Your task to perform on an android device: Search for the best rated TV on Target Image 0: 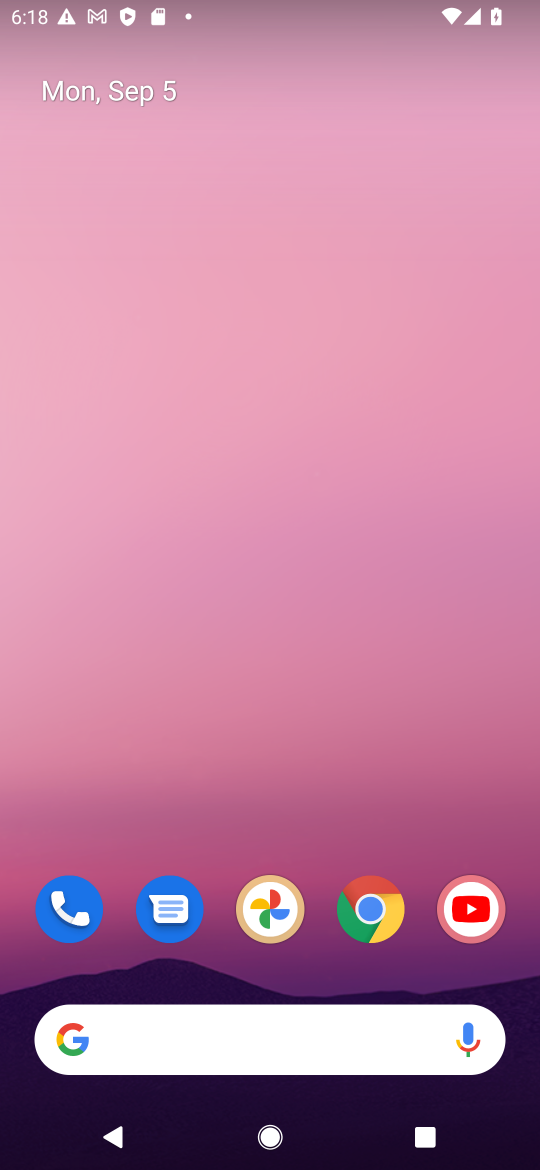
Step 0: drag from (227, 810) to (182, 163)
Your task to perform on an android device: Search for the best rated TV on Target Image 1: 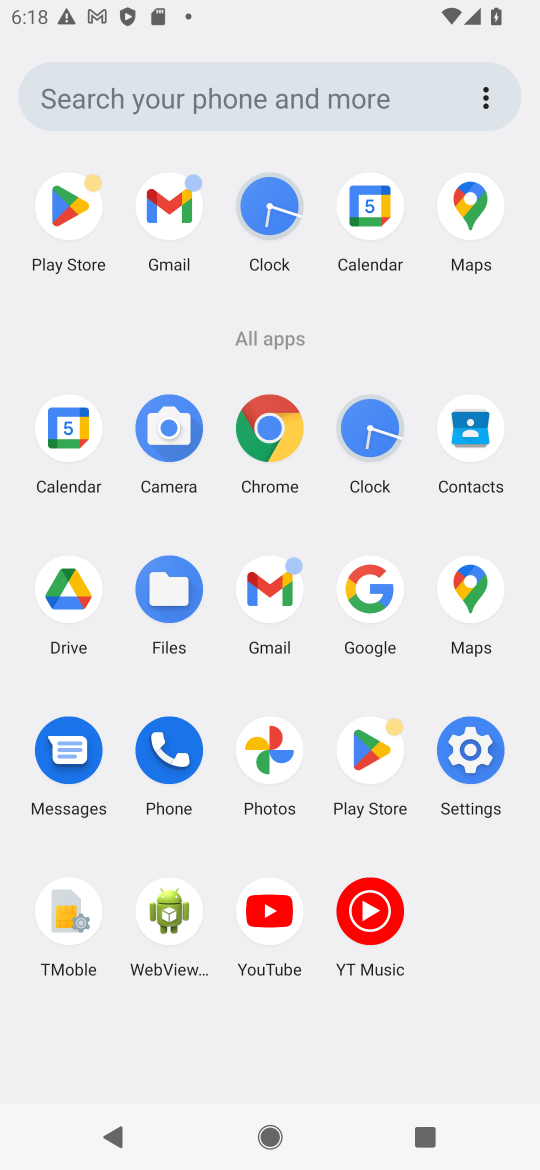
Step 1: click (362, 595)
Your task to perform on an android device: Search for the best rated TV on Target Image 2: 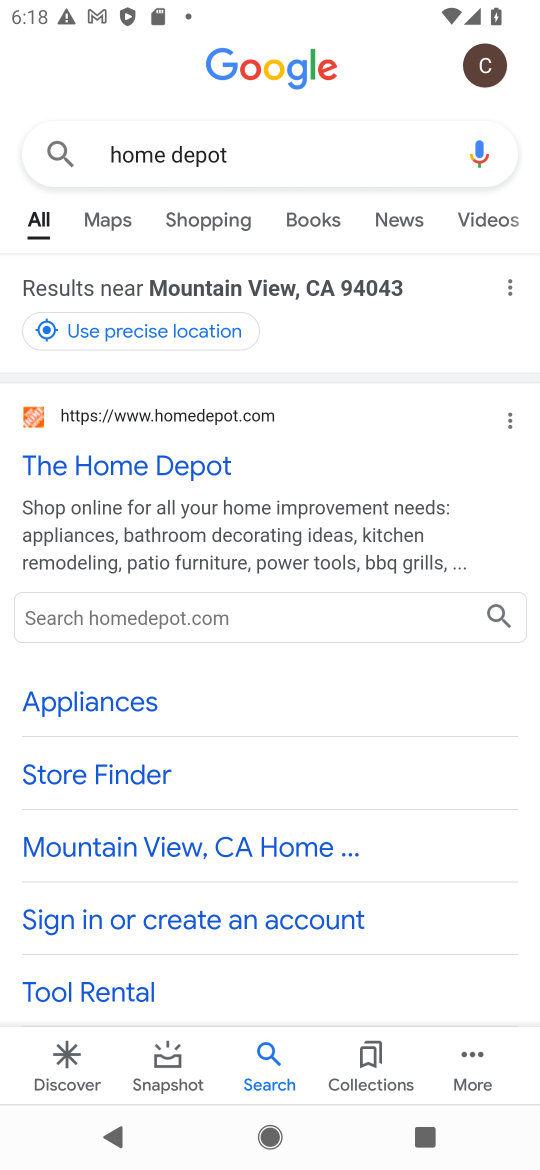
Step 2: click (301, 156)
Your task to perform on an android device: Search for the best rated TV on Target Image 3: 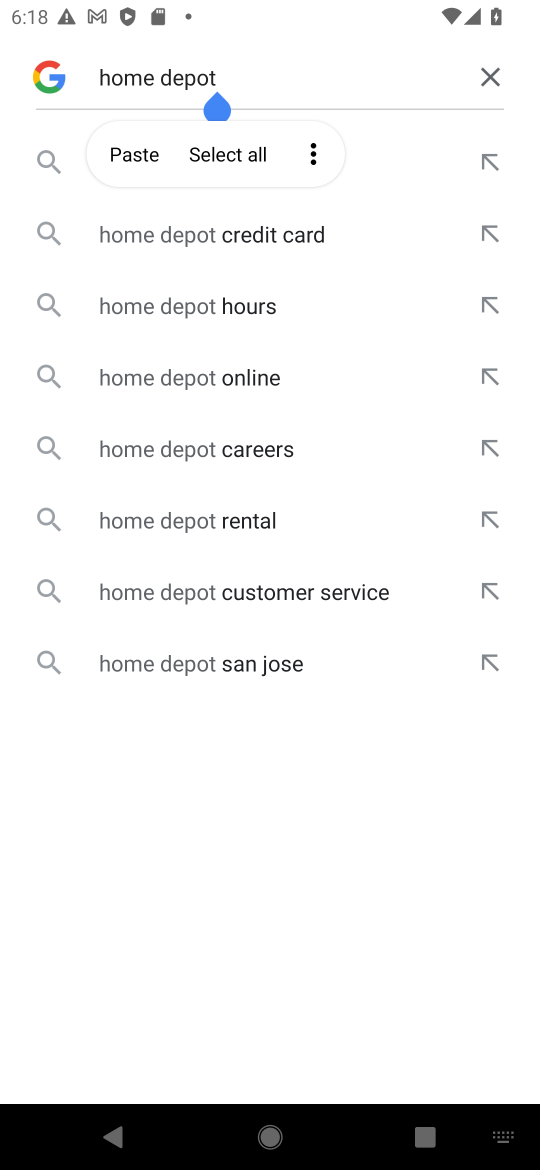
Step 3: click (492, 77)
Your task to perform on an android device: Search for the best rated TV on Target Image 4: 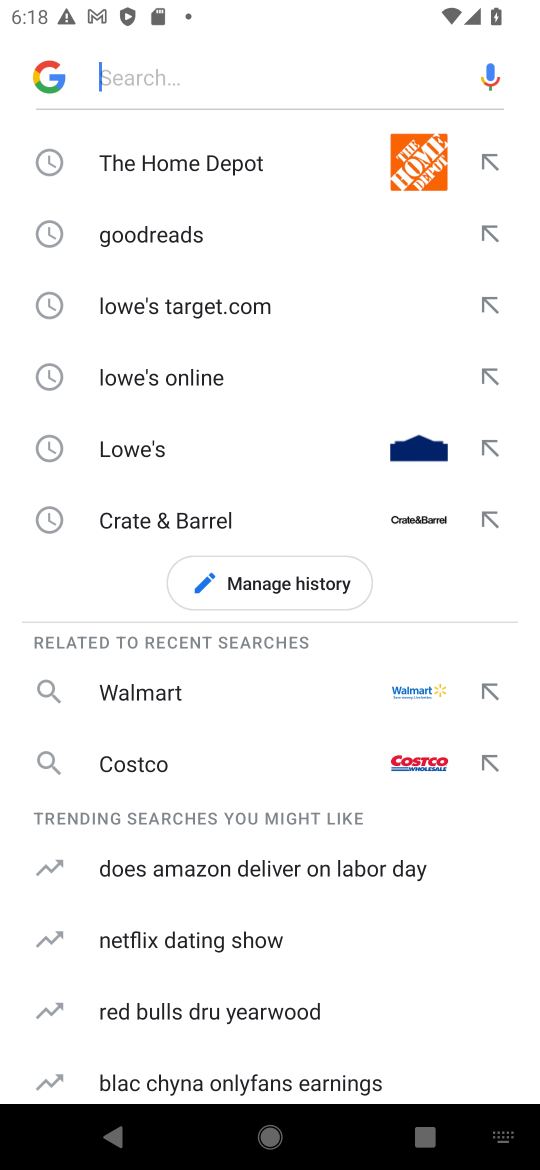
Step 4: type "Target"
Your task to perform on an android device: Search for the best rated TV on Target Image 5: 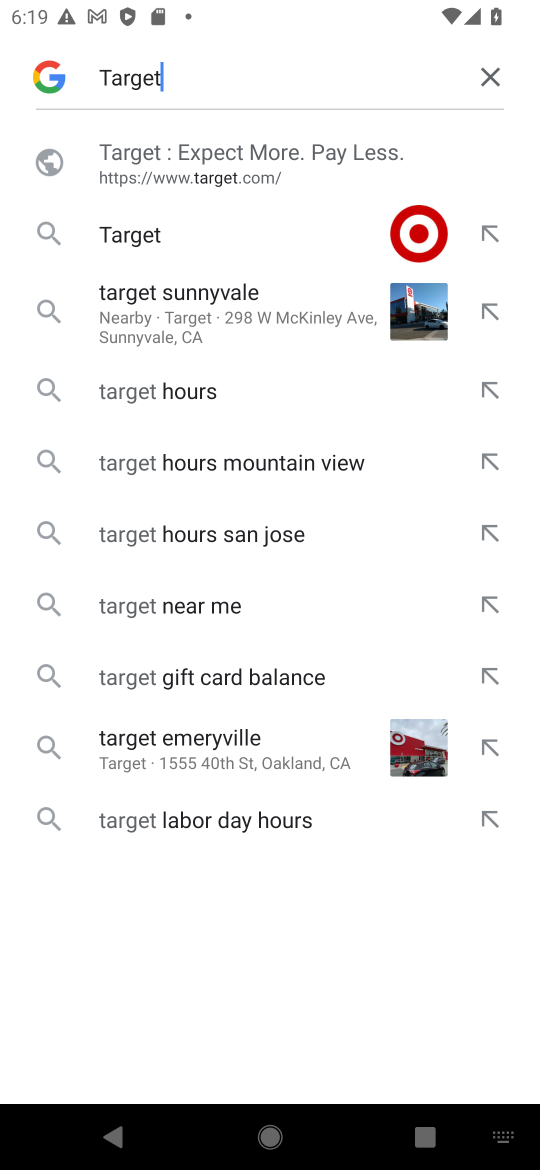
Step 5: click (194, 156)
Your task to perform on an android device: Search for the best rated TV on Target Image 6: 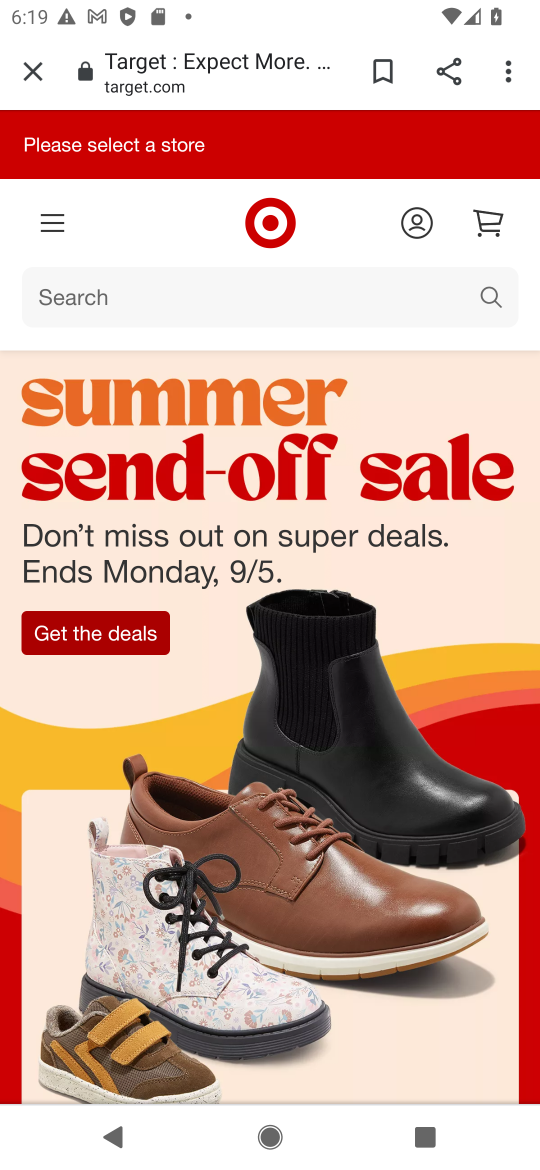
Step 6: click (492, 301)
Your task to perform on an android device: Search for the best rated TV on Target Image 7: 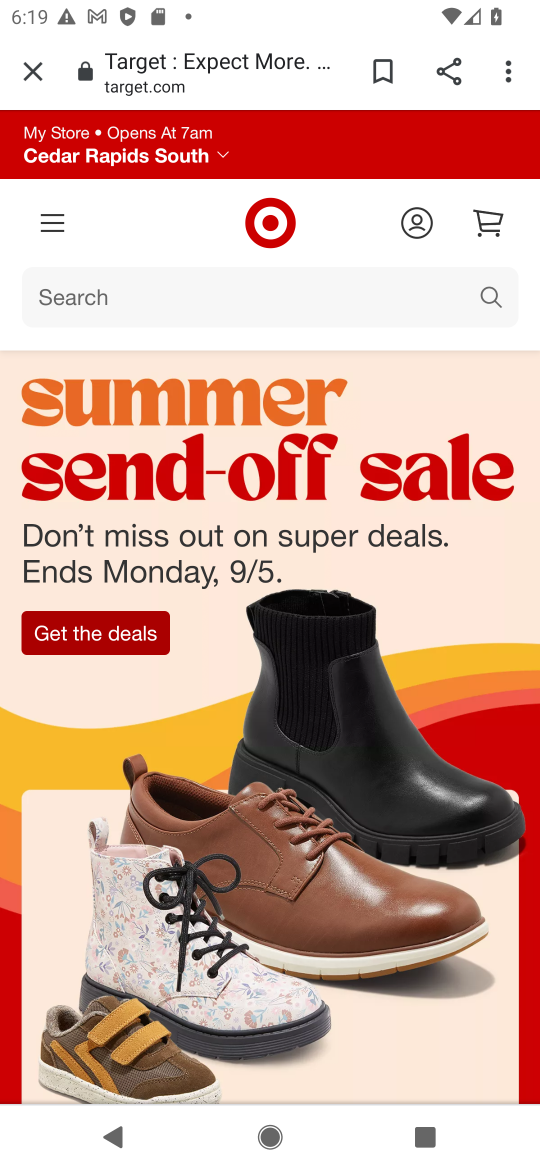
Step 7: click (119, 305)
Your task to perform on an android device: Search for the best rated TV on Target Image 8: 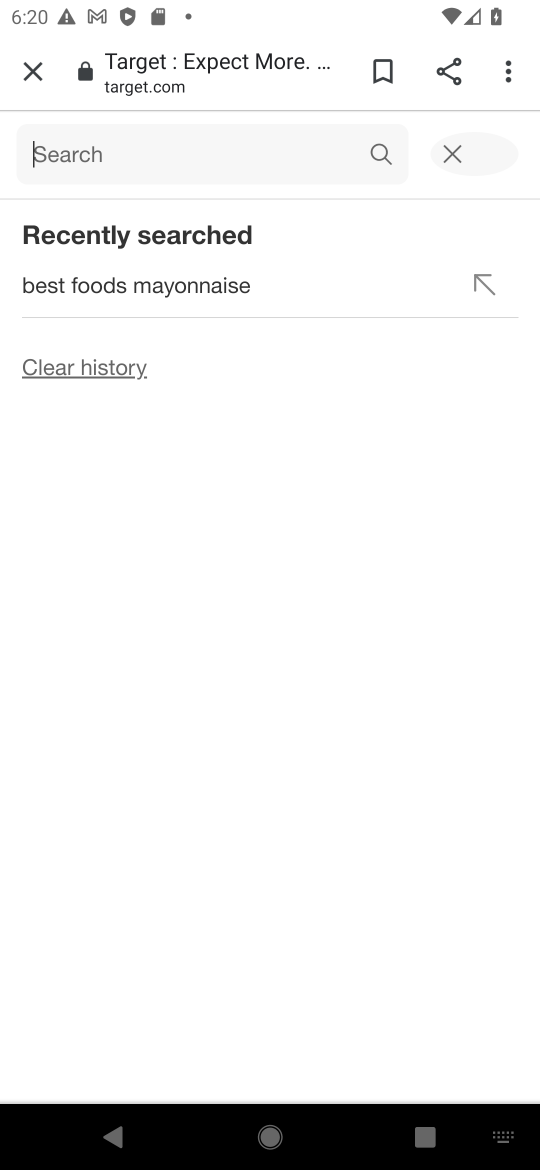
Step 8: click (382, 155)
Your task to perform on an android device: Search for the best rated TV on Target Image 9: 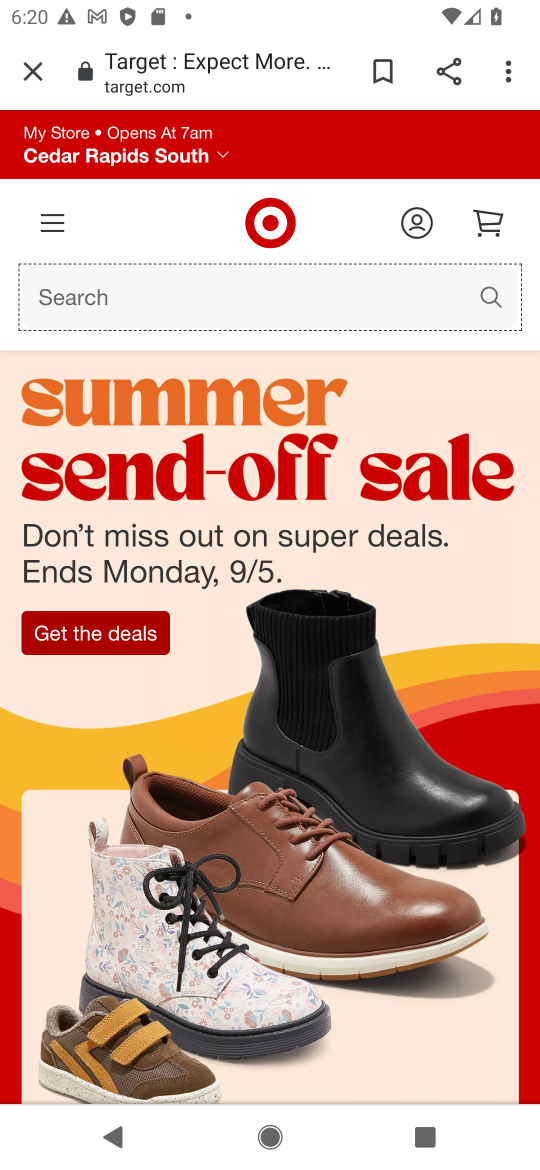
Step 9: type "best rated TV"
Your task to perform on an android device: Search for the best rated TV on Target Image 10: 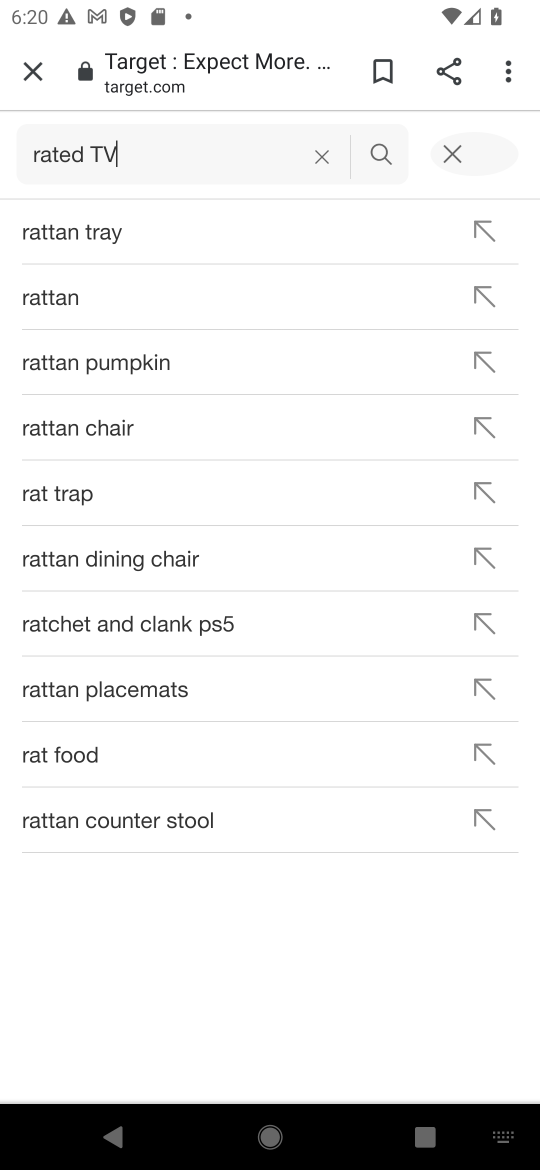
Step 10: click (367, 146)
Your task to perform on an android device: Search for the best rated TV on Target Image 11: 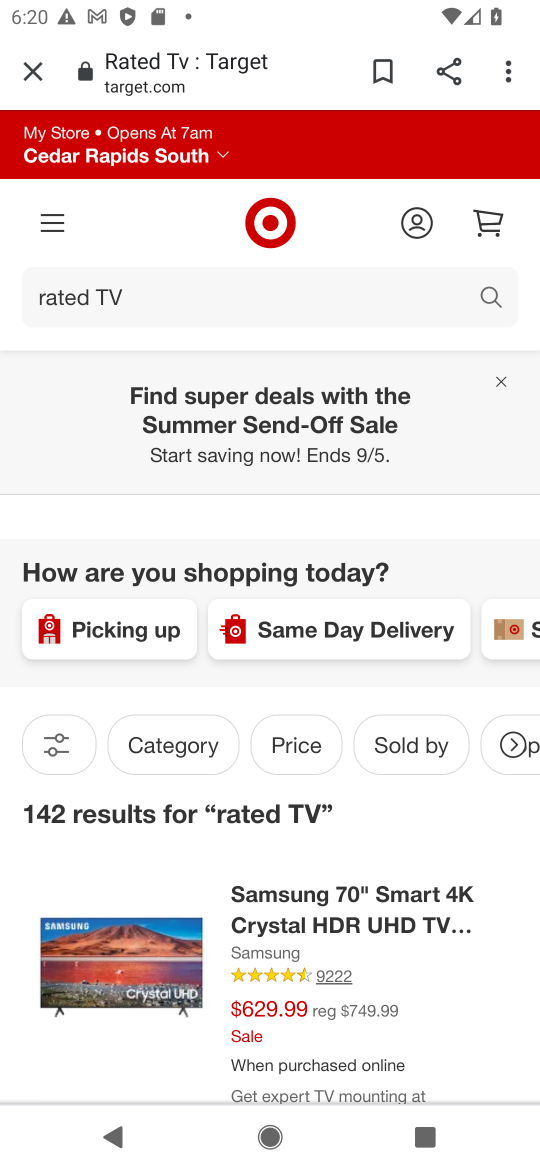
Step 11: drag from (269, 896) to (269, 550)
Your task to perform on an android device: Search for the best rated TV on Target Image 12: 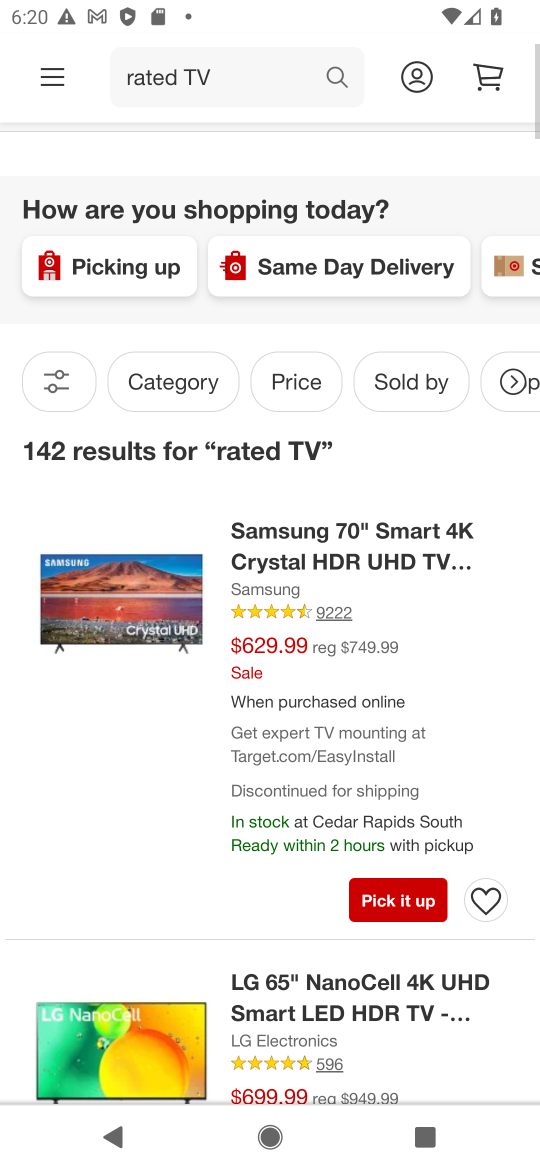
Step 12: click (305, 509)
Your task to perform on an android device: Search for the best rated TV on Target Image 13: 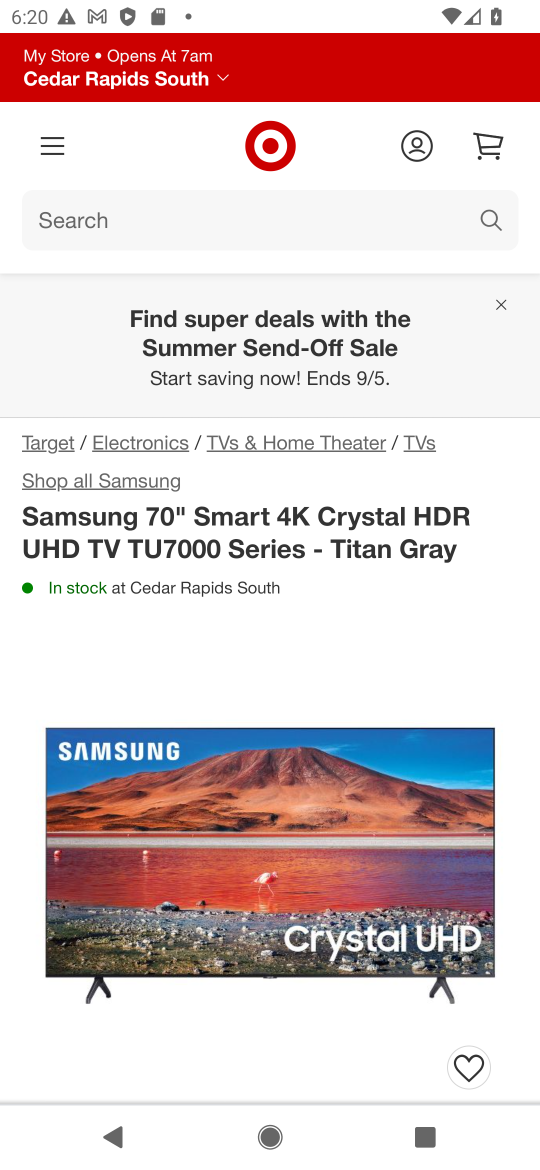
Step 13: task complete